Your task to perform on an android device: toggle airplane mode Image 0: 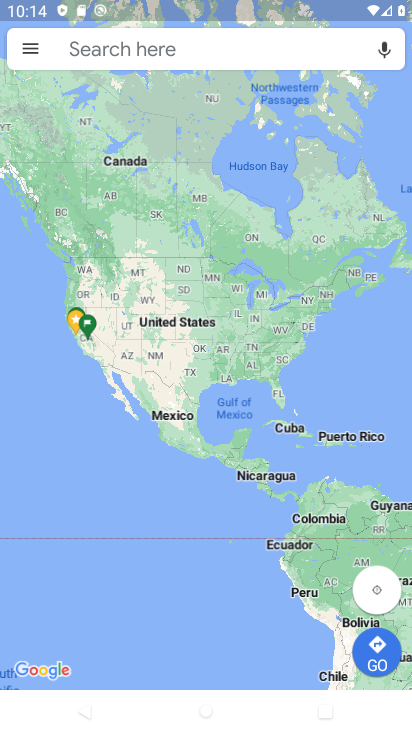
Step 0: press back button
Your task to perform on an android device: toggle airplane mode Image 1: 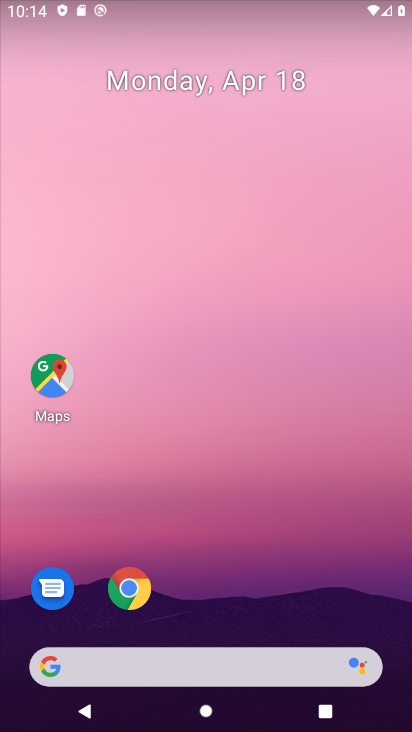
Step 1: drag from (299, 569) to (269, 3)
Your task to perform on an android device: toggle airplane mode Image 2: 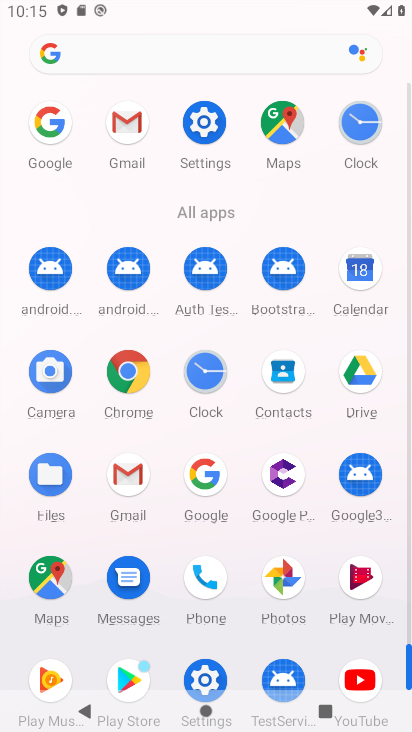
Step 2: click (204, 121)
Your task to perform on an android device: toggle airplane mode Image 3: 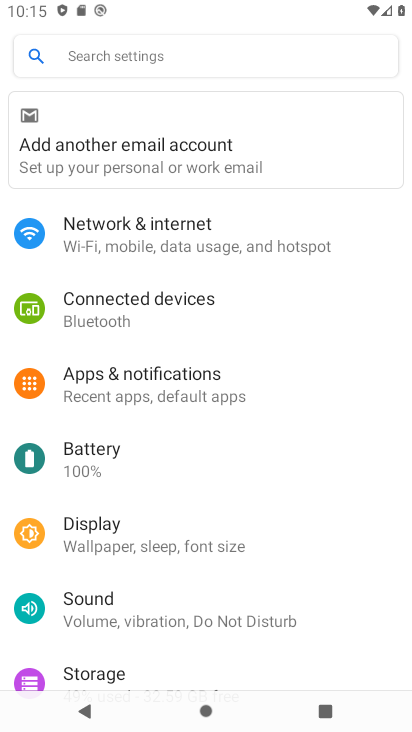
Step 3: click (231, 240)
Your task to perform on an android device: toggle airplane mode Image 4: 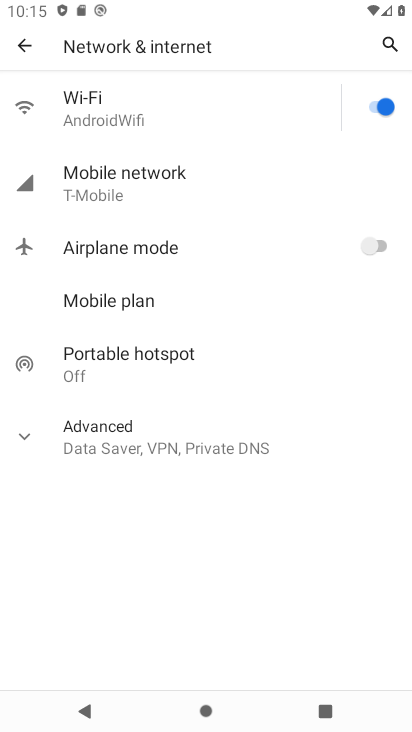
Step 4: click (371, 246)
Your task to perform on an android device: toggle airplane mode Image 5: 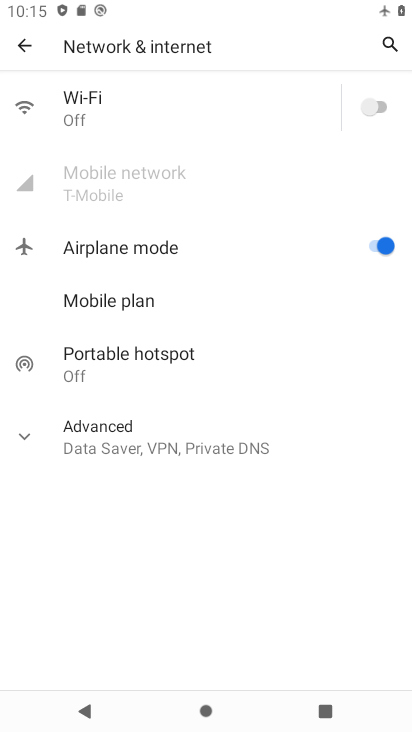
Step 5: task complete